Your task to perform on an android device: Open maps Image 0: 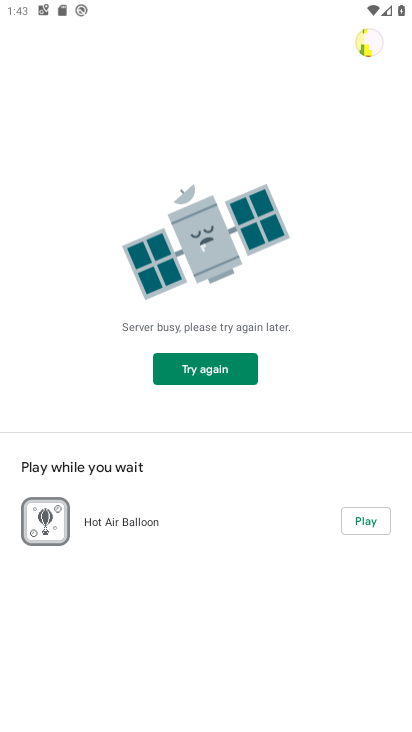
Step 0: press home button
Your task to perform on an android device: Open maps Image 1: 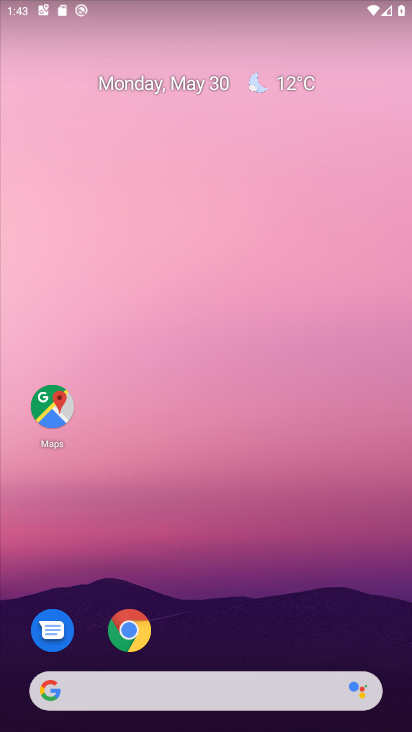
Step 1: click (54, 414)
Your task to perform on an android device: Open maps Image 2: 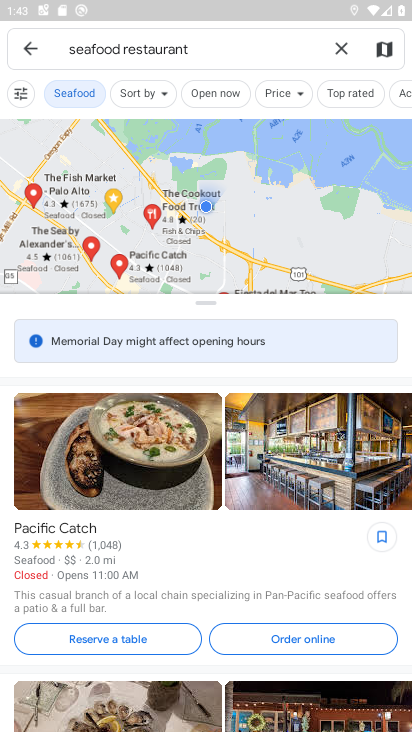
Step 2: task complete